Your task to perform on an android device: Open the calendar and show me this week's events Image 0: 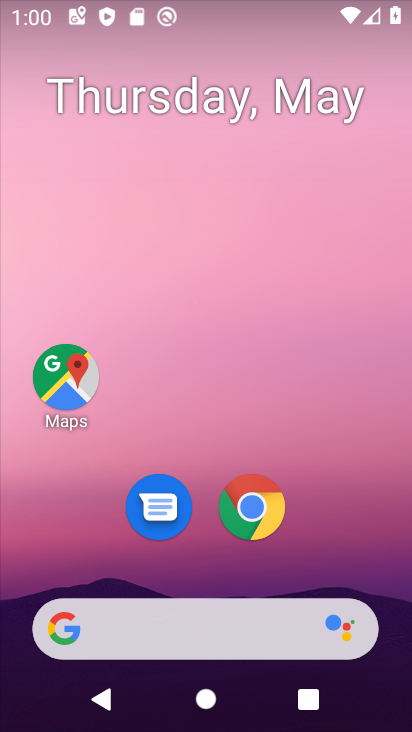
Step 0: drag from (325, 678) to (338, 131)
Your task to perform on an android device: Open the calendar and show me this week's events Image 1: 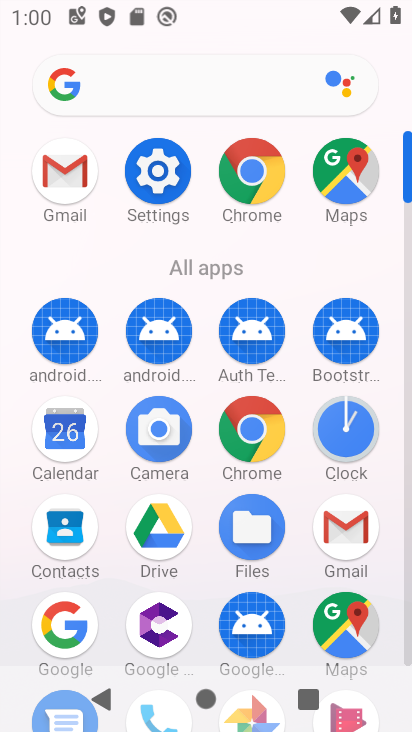
Step 1: drag from (302, 593) to (295, 361)
Your task to perform on an android device: Open the calendar and show me this week's events Image 2: 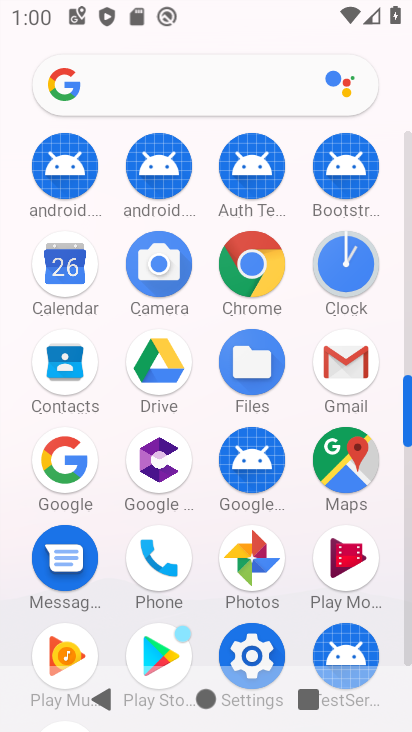
Step 2: click (80, 253)
Your task to perform on an android device: Open the calendar and show me this week's events Image 3: 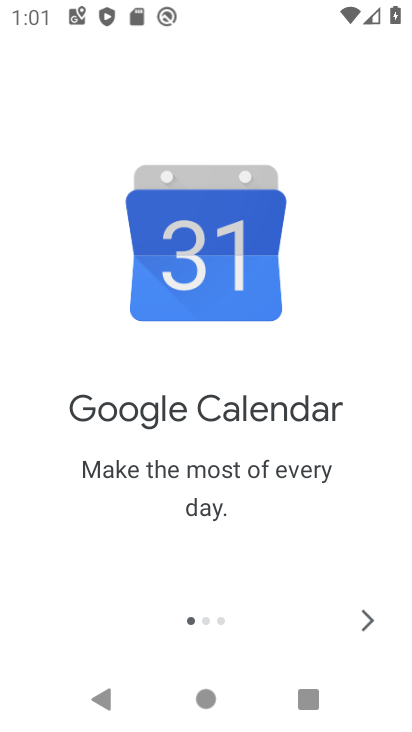
Step 3: click (347, 623)
Your task to perform on an android device: Open the calendar and show me this week's events Image 4: 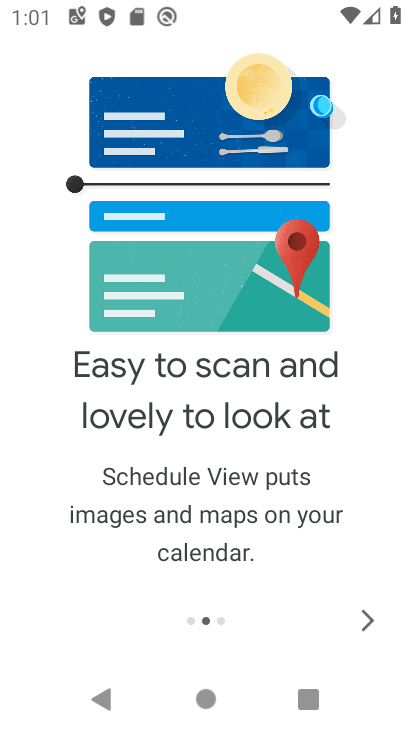
Step 4: click (361, 622)
Your task to perform on an android device: Open the calendar and show me this week's events Image 5: 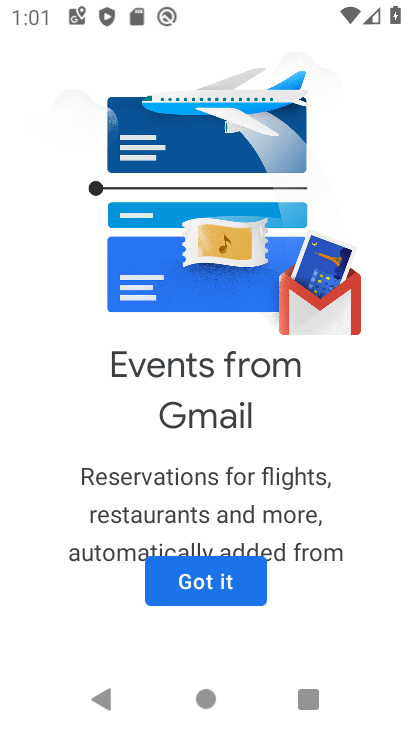
Step 5: click (213, 593)
Your task to perform on an android device: Open the calendar and show me this week's events Image 6: 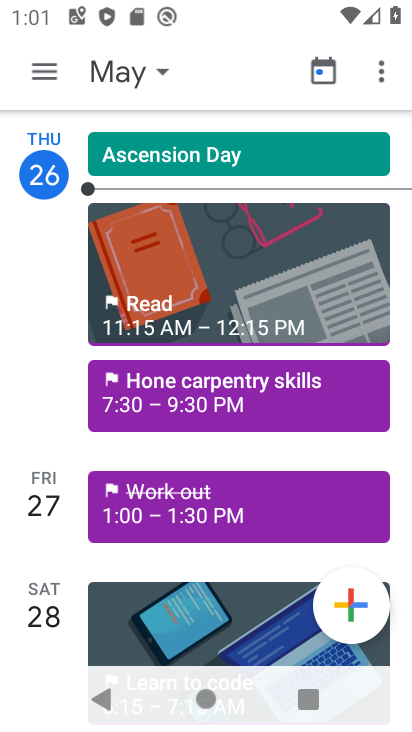
Step 6: click (161, 70)
Your task to perform on an android device: Open the calendar and show me this week's events Image 7: 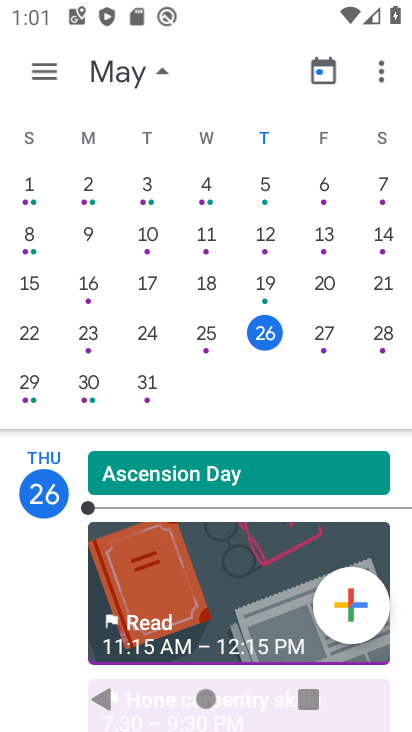
Step 7: click (323, 336)
Your task to perform on an android device: Open the calendar and show me this week's events Image 8: 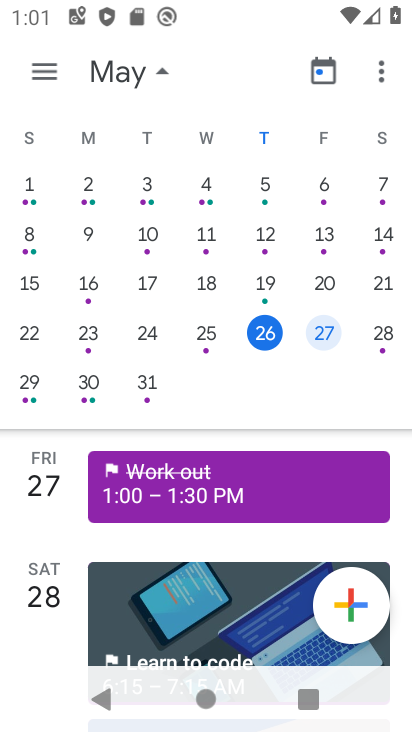
Step 8: task complete